Your task to perform on an android device: Go to eBay Image 0: 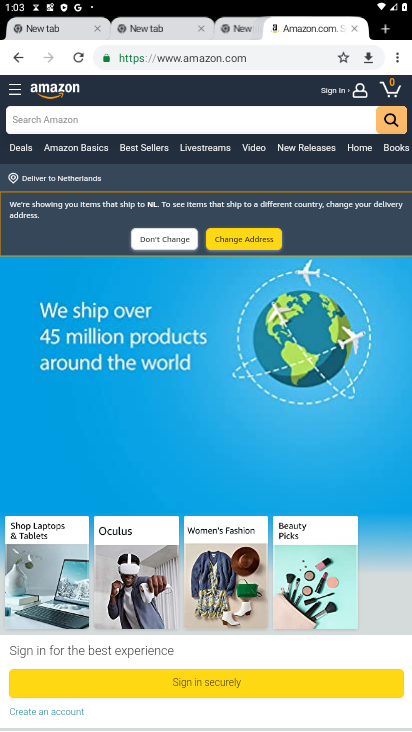
Step 0: click (35, 692)
Your task to perform on an android device: Go to eBay Image 1: 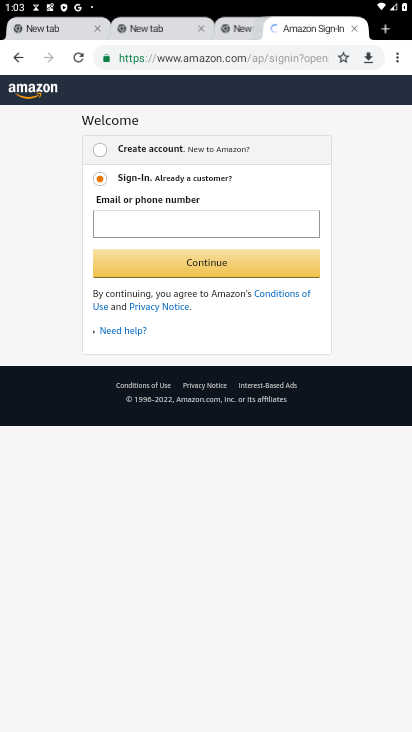
Step 1: press home button
Your task to perform on an android device: Go to eBay Image 2: 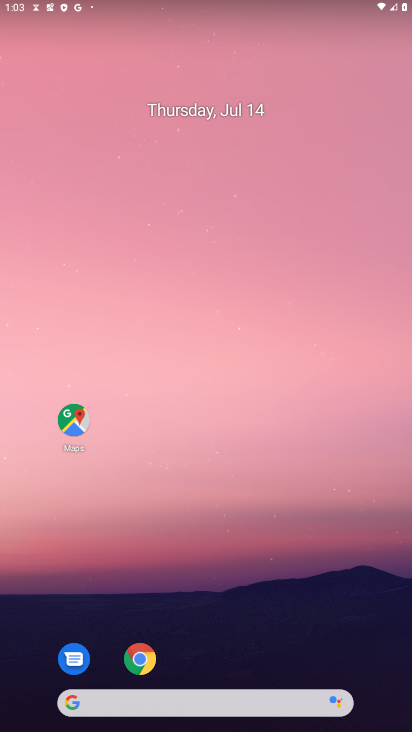
Step 2: click (142, 700)
Your task to perform on an android device: Go to eBay Image 3: 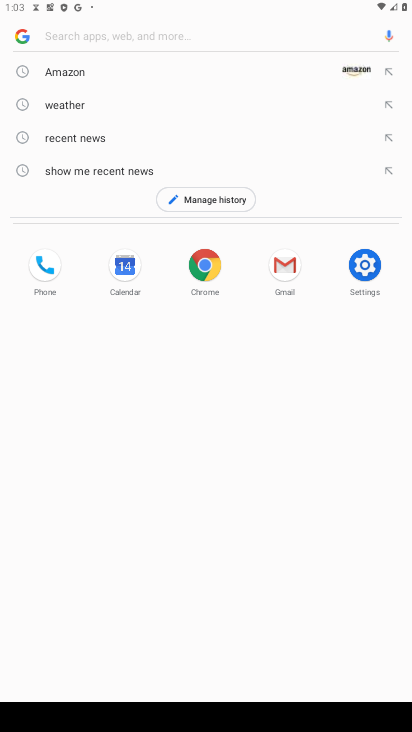
Step 3: click (87, 30)
Your task to perform on an android device: Go to eBay Image 4: 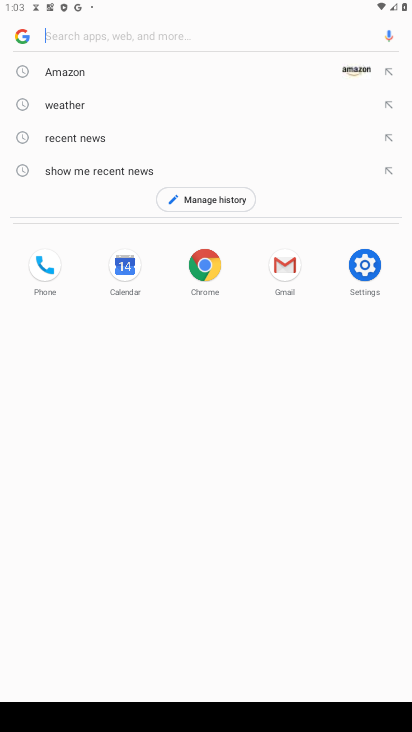
Step 4: type "eBay"
Your task to perform on an android device: Go to eBay Image 5: 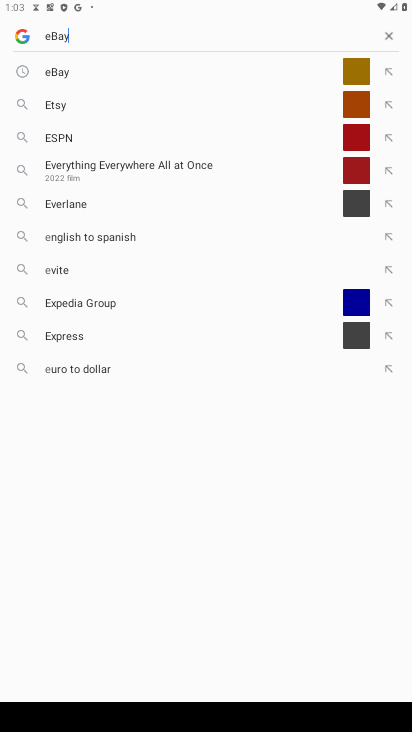
Step 5: type ""
Your task to perform on an android device: Go to eBay Image 6: 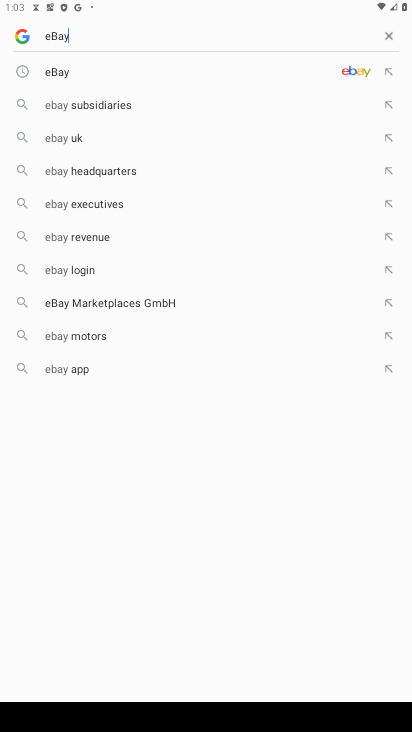
Step 6: click (66, 74)
Your task to perform on an android device: Go to eBay Image 7: 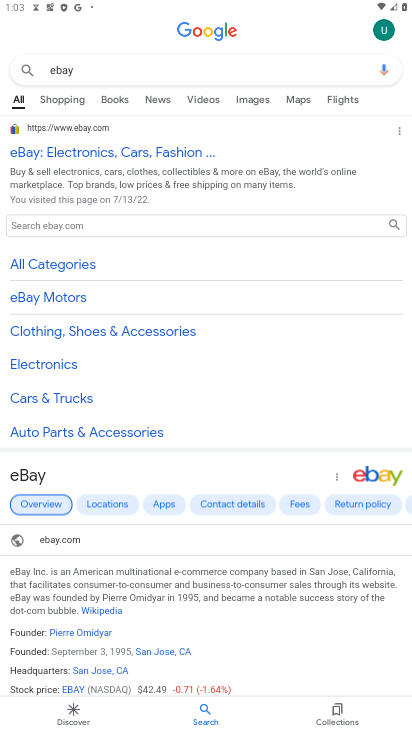
Step 7: task complete